Your task to perform on an android device: change alarm snooze length Image 0: 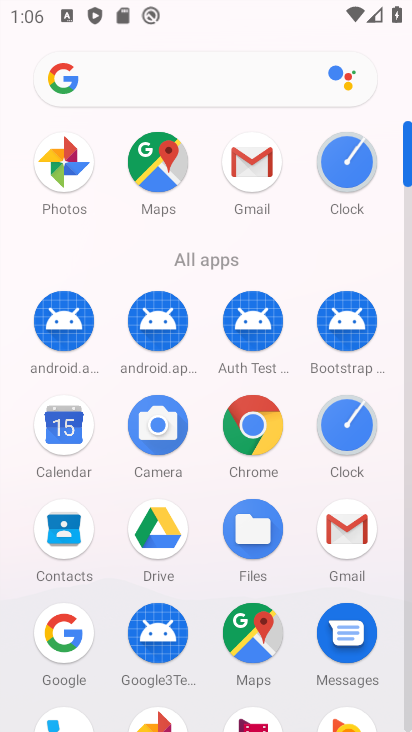
Step 0: click (361, 416)
Your task to perform on an android device: change alarm snooze length Image 1: 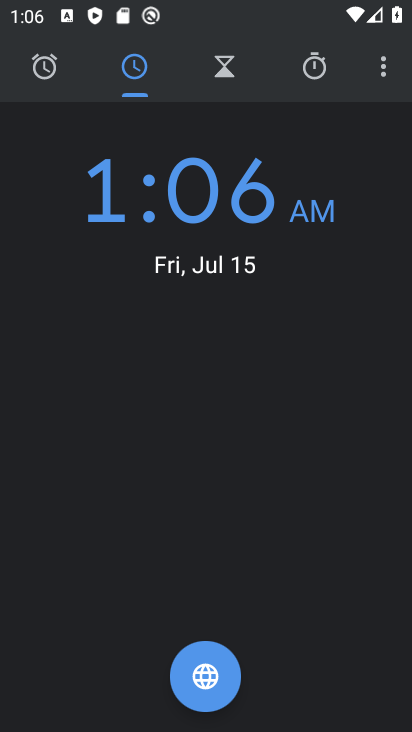
Step 1: click (374, 72)
Your task to perform on an android device: change alarm snooze length Image 2: 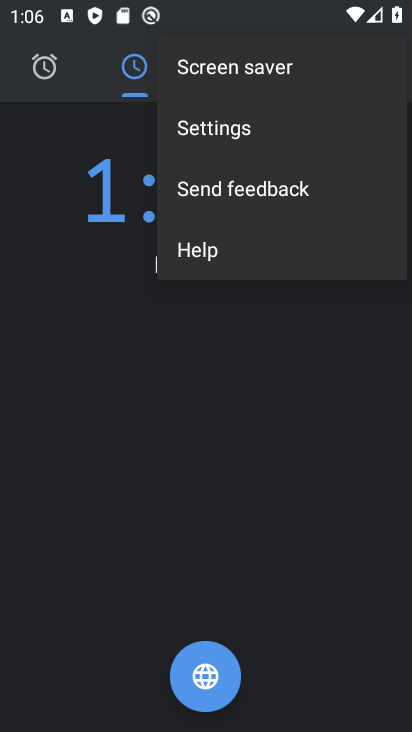
Step 2: click (311, 124)
Your task to perform on an android device: change alarm snooze length Image 3: 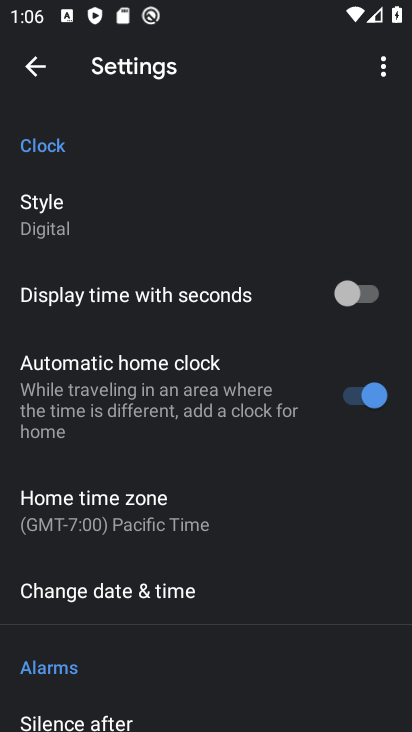
Step 3: drag from (278, 548) to (248, 90)
Your task to perform on an android device: change alarm snooze length Image 4: 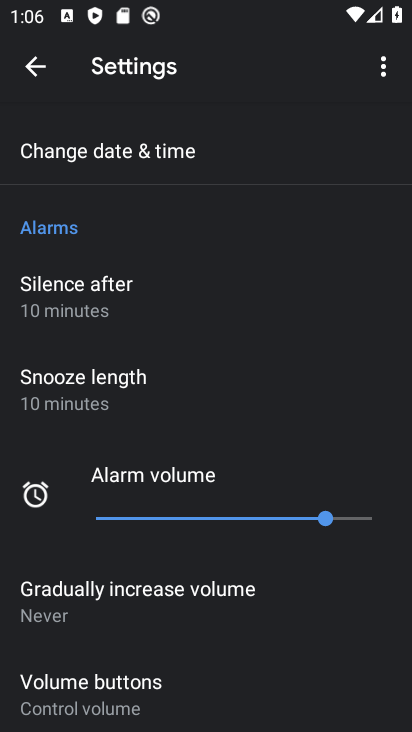
Step 4: click (118, 386)
Your task to perform on an android device: change alarm snooze length Image 5: 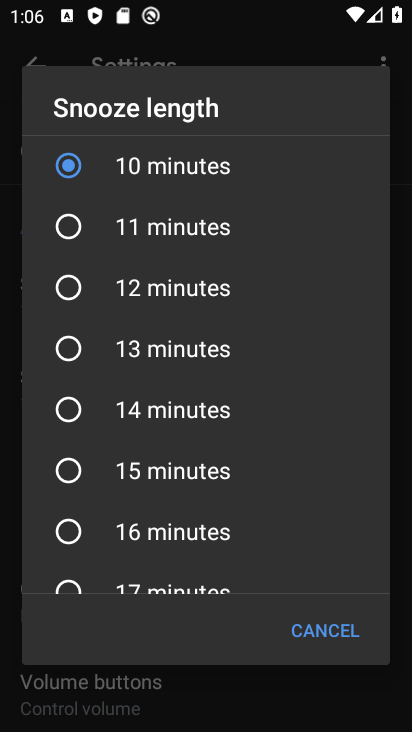
Step 5: click (89, 297)
Your task to perform on an android device: change alarm snooze length Image 6: 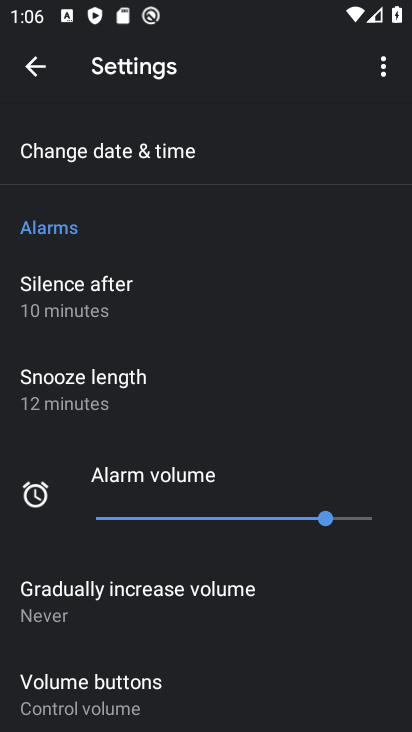
Step 6: task complete